Your task to perform on an android device: Show the shopping cart on ebay.com. Add "logitech g903" to the cart on ebay.com, then select checkout. Image 0: 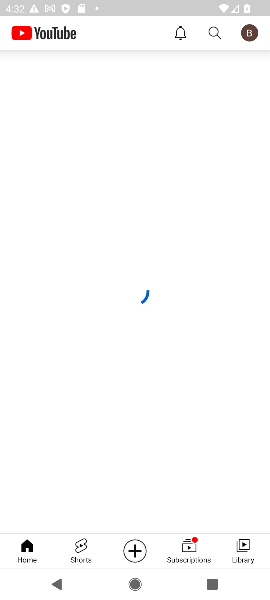
Step 0: press home button
Your task to perform on an android device: Show the shopping cart on ebay.com. Add "logitech g903" to the cart on ebay.com, then select checkout. Image 1: 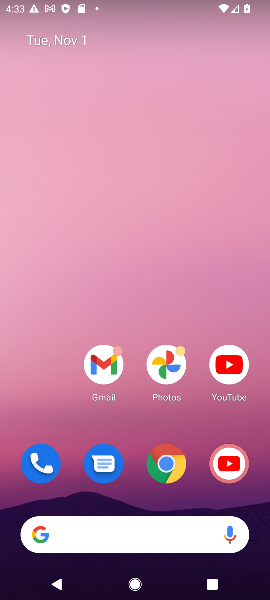
Step 1: click (169, 465)
Your task to perform on an android device: Show the shopping cart on ebay.com. Add "logitech g903" to the cart on ebay.com, then select checkout. Image 2: 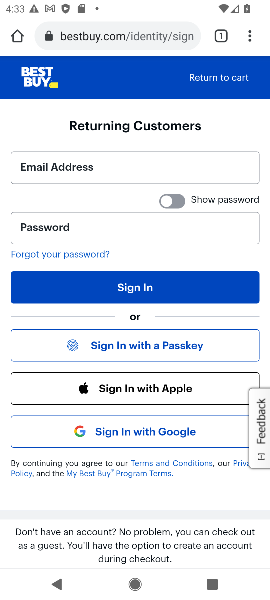
Step 2: click (20, 37)
Your task to perform on an android device: Show the shopping cart on ebay.com. Add "logitech g903" to the cart on ebay.com, then select checkout. Image 3: 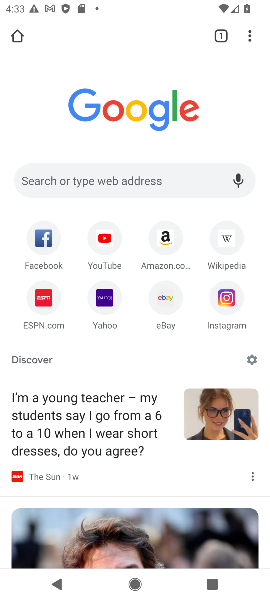
Step 3: click (164, 300)
Your task to perform on an android device: Show the shopping cart on ebay.com. Add "logitech g903" to the cart on ebay.com, then select checkout. Image 4: 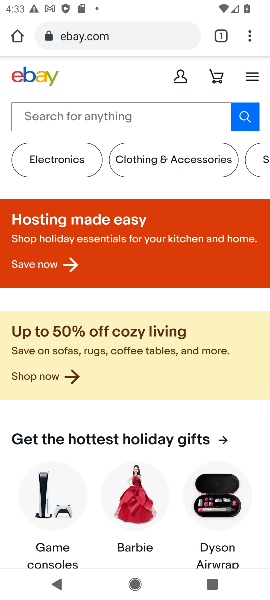
Step 4: click (220, 77)
Your task to perform on an android device: Show the shopping cart on ebay.com. Add "logitech g903" to the cart on ebay.com, then select checkout. Image 5: 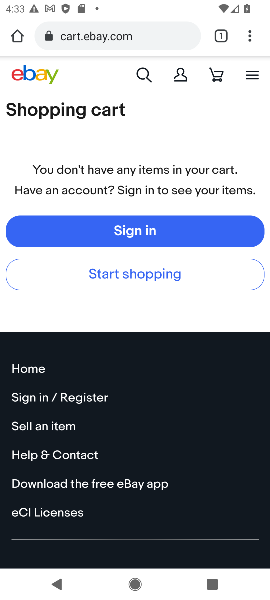
Step 5: click (144, 75)
Your task to perform on an android device: Show the shopping cart on ebay.com. Add "logitech g903" to the cart on ebay.com, then select checkout. Image 6: 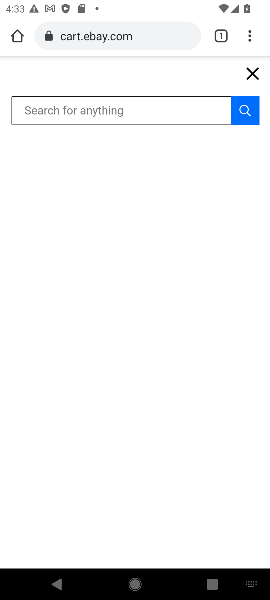
Step 6: type "logitech g903"
Your task to perform on an android device: Show the shopping cart on ebay.com. Add "logitech g903" to the cart on ebay.com, then select checkout. Image 7: 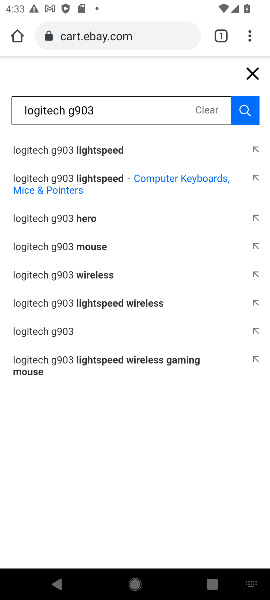
Step 7: press enter
Your task to perform on an android device: Show the shopping cart on ebay.com. Add "logitech g903" to the cart on ebay.com, then select checkout. Image 8: 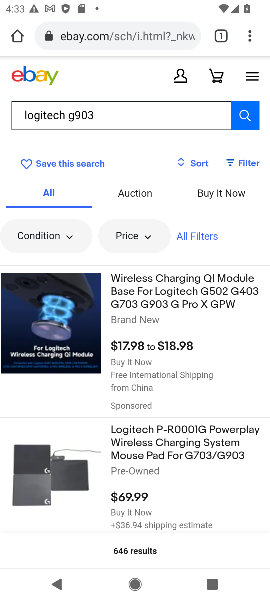
Step 8: drag from (129, 413) to (109, 237)
Your task to perform on an android device: Show the shopping cart on ebay.com. Add "logitech g903" to the cart on ebay.com, then select checkout. Image 9: 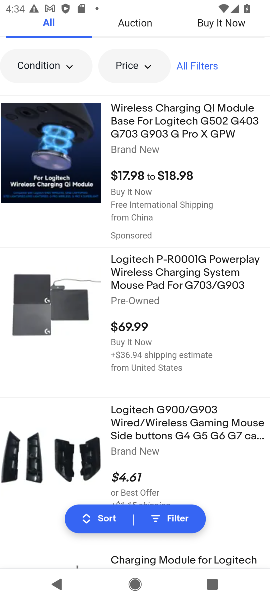
Step 9: click (60, 311)
Your task to perform on an android device: Show the shopping cart on ebay.com. Add "logitech g903" to the cart on ebay.com, then select checkout. Image 10: 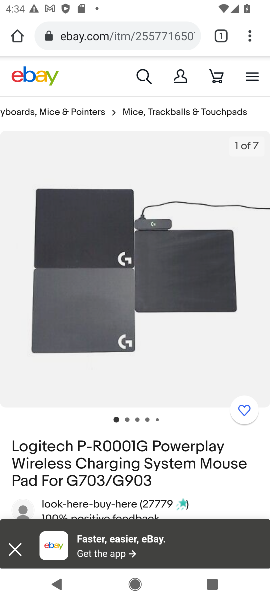
Step 10: drag from (208, 436) to (114, 214)
Your task to perform on an android device: Show the shopping cart on ebay.com. Add "logitech g903" to the cart on ebay.com, then select checkout. Image 11: 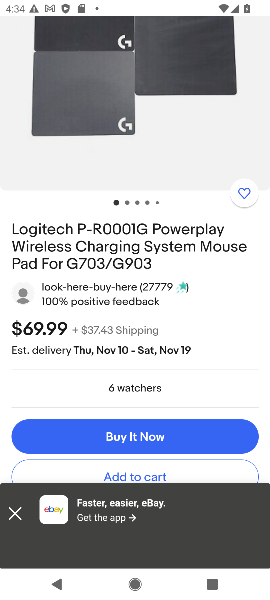
Step 11: click (128, 472)
Your task to perform on an android device: Show the shopping cart on ebay.com. Add "logitech g903" to the cart on ebay.com, then select checkout. Image 12: 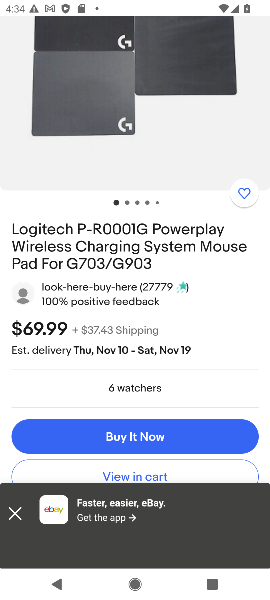
Step 12: click (14, 514)
Your task to perform on an android device: Show the shopping cart on ebay.com. Add "logitech g903" to the cart on ebay.com, then select checkout. Image 13: 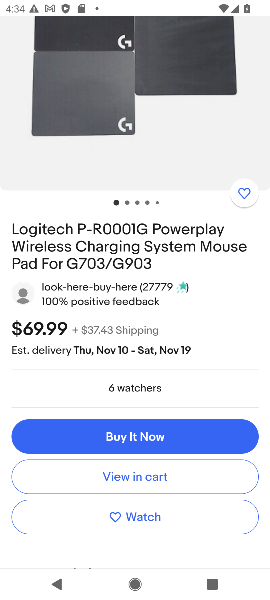
Step 13: click (78, 481)
Your task to perform on an android device: Show the shopping cart on ebay.com. Add "logitech g903" to the cart on ebay.com, then select checkout. Image 14: 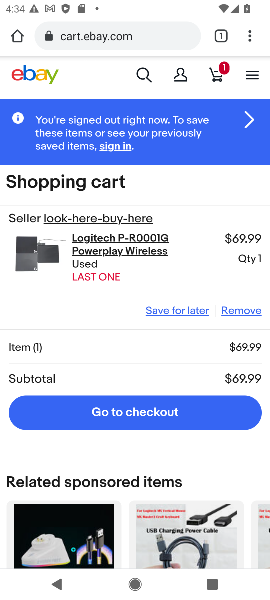
Step 14: click (114, 411)
Your task to perform on an android device: Show the shopping cart on ebay.com. Add "logitech g903" to the cart on ebay.com, then select checkout. Image 15: 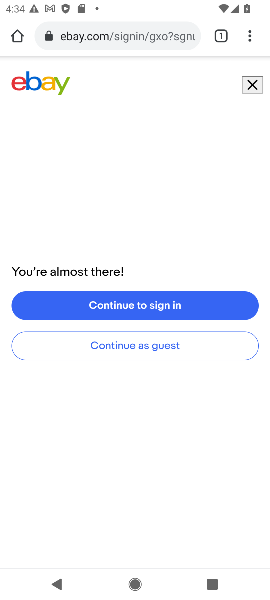
Step 15: task complete